Your task to perform on an android device: Open Google Maps Image 0: 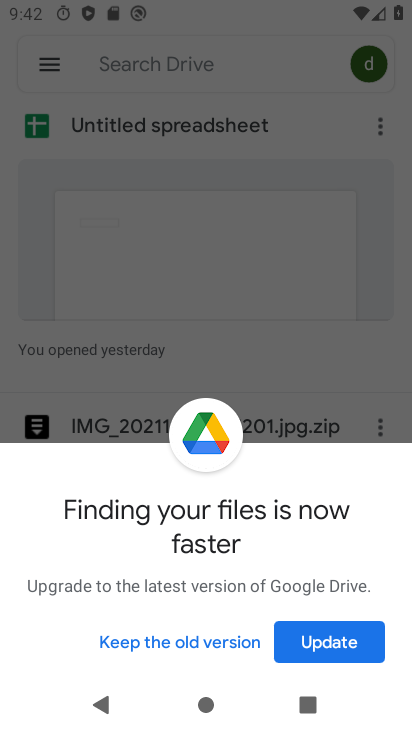
Step 0: press home button
Your task to perform on an android device: Open Google Maps Image 1: 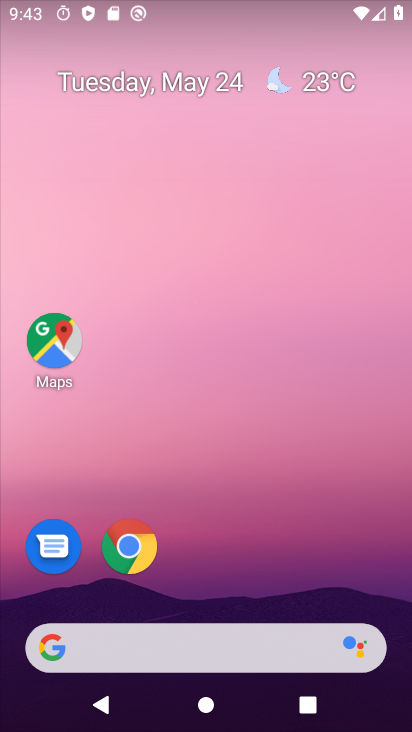
Step 1: click (46, 345)
Your task to perform on an android device: Open Google Maps Image 2: 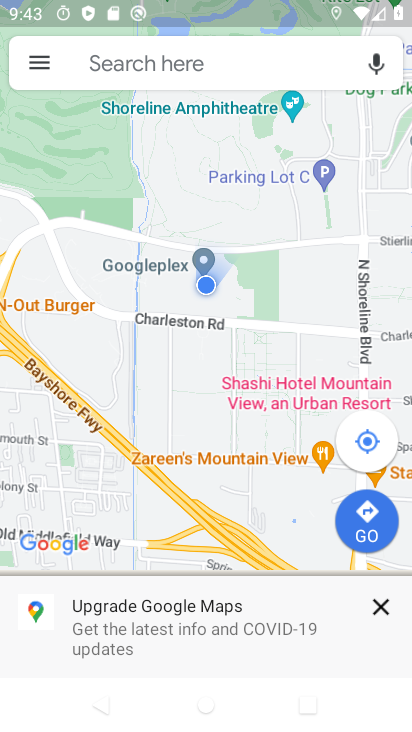
Step 2: task complete